Your task to perform on an android device: set default search engine in the chrome app Image 0: 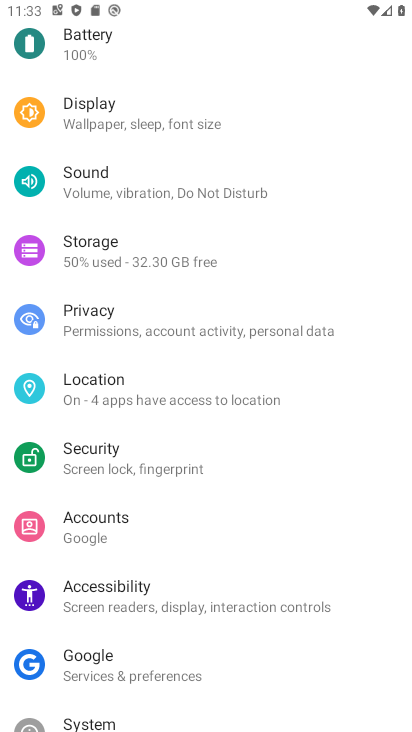
Step 0: press home button
Your task to perform on an android device: set default search engine in the chrome app Image 1: 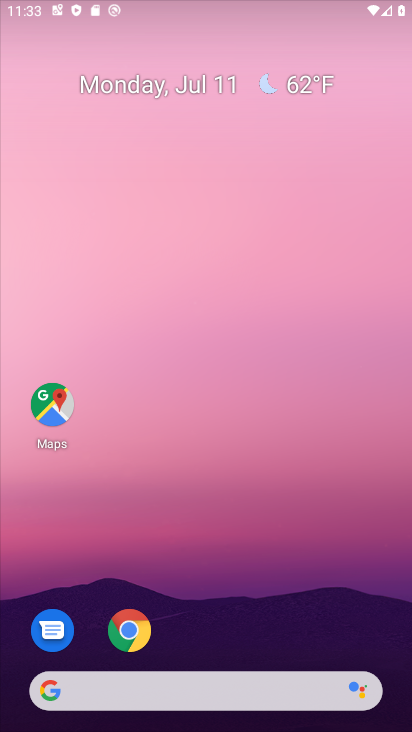
Step 1: drag from (336, 665) to (332, 84)
Your task to perform on an android device: set default search engine in the chrome app Image 2: 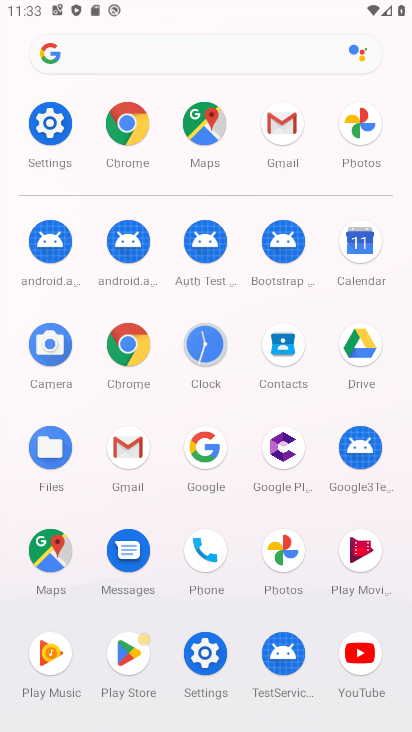
Step 2: click (137, 339)
Your task to perform on an android device: set default search engine in the chrome app Image 3: 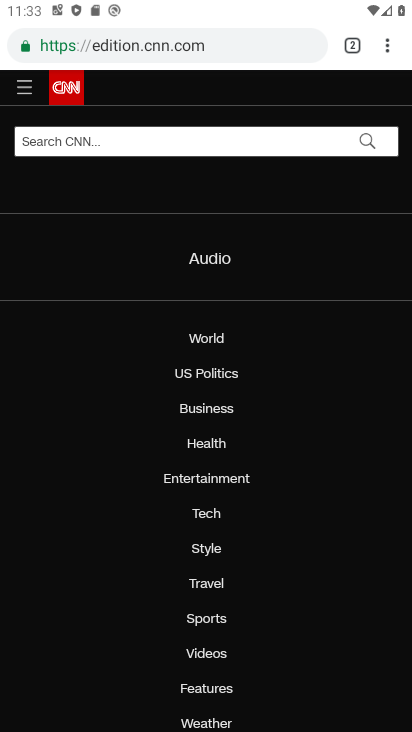
Step 3: drag from (384, 40) to (234, 554)
Your task to perform on an android device: set default search engine in the chrome app Image 4: 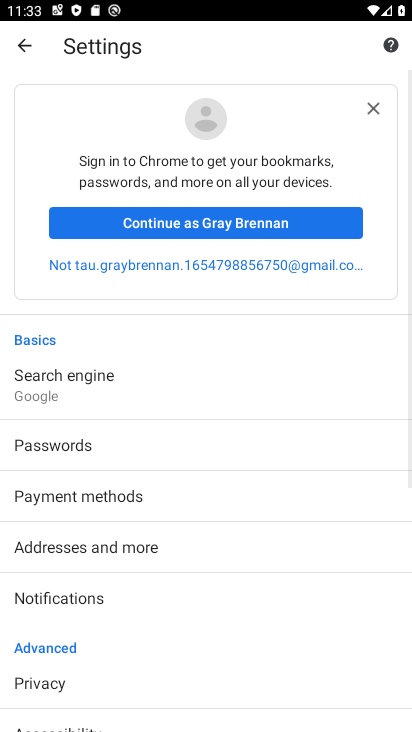
Step 4: click (98, 375)
Your task to perform on an android device: set default search engine in the chrome app Image 5: 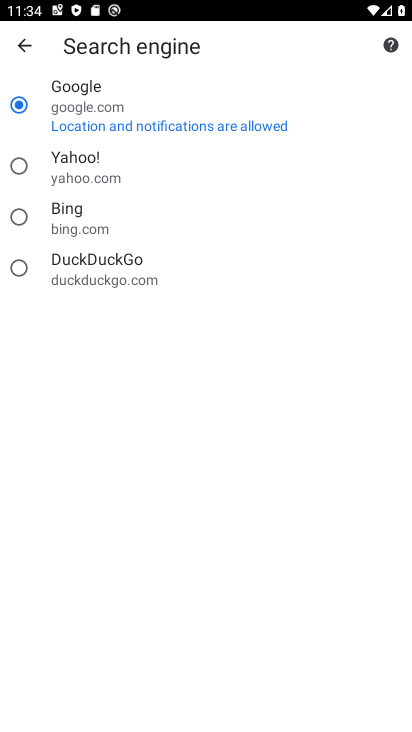
Step 5: task complete